Your task to perform on an android device: toggle data saver in the chrome app Image 0: 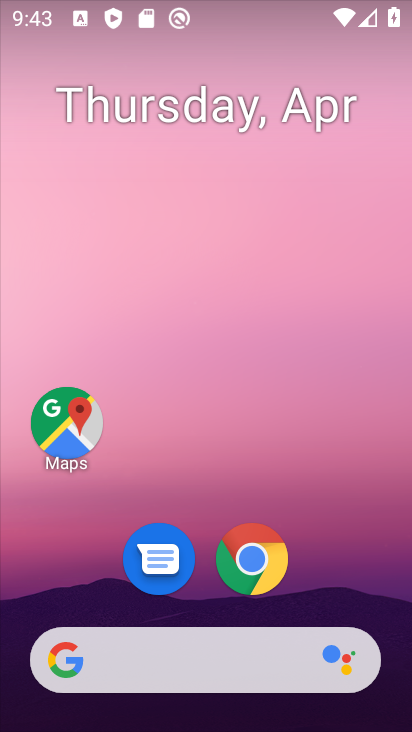
Step 0: click (72, 430)
Your task to perform on an android device: toggle data saver in the chrome app Image 1: 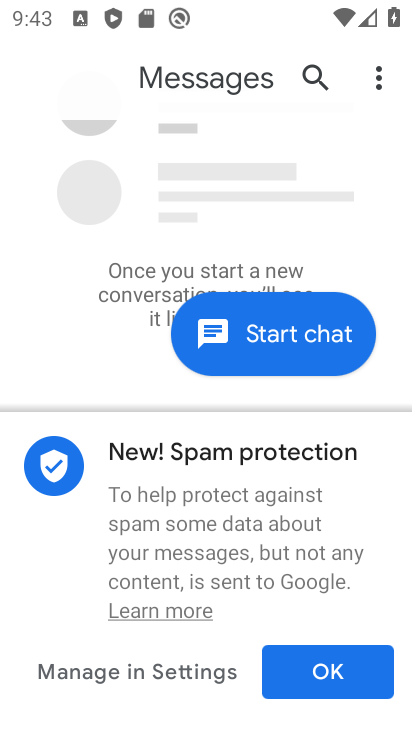
Step 1: press home button
Your task to perform on an android device: toggle data saver in the chrome app Image 2: 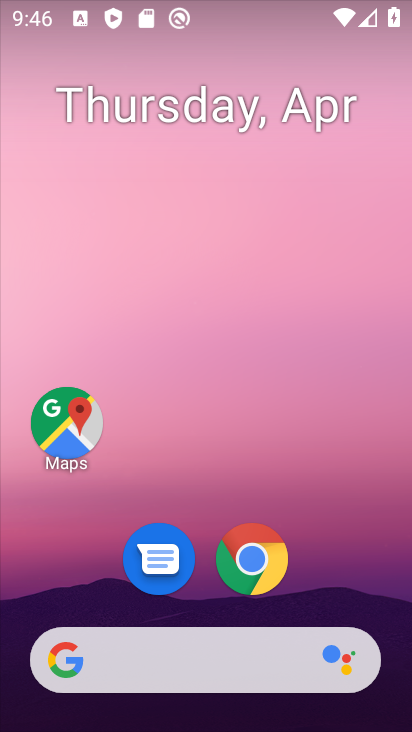
Step 2: click (248, 554)
Your task to perform on an android device: toggle data saver in the chrome app Image 3: 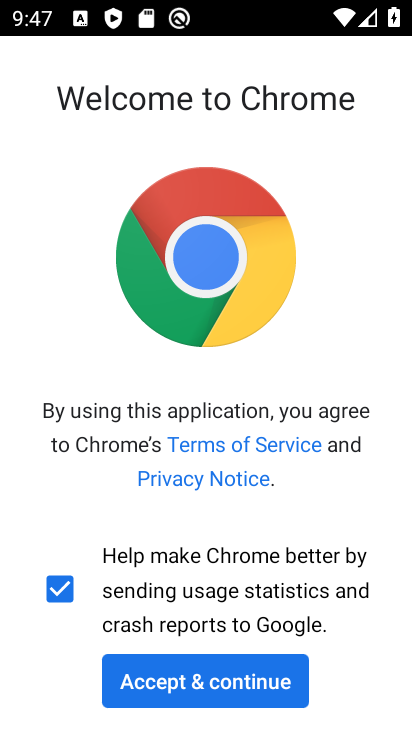
Step 3: click (219, 684)
Your task to perform on an android device: toggle data saver in the chrome app Image 4: 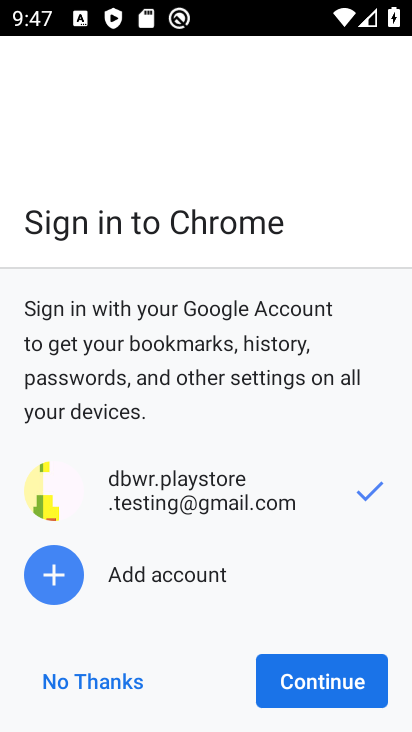
Step 4: click (286, 680)
Your task to perform on an android device: toggle data saver in the chrome app Image 5: 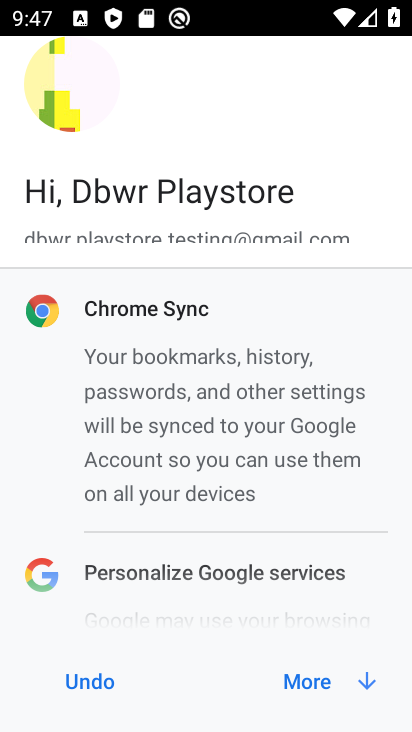
Step 5: click (309, 684)
Your task to perform on an android device: toggle data saver in the chrome app Image 6: 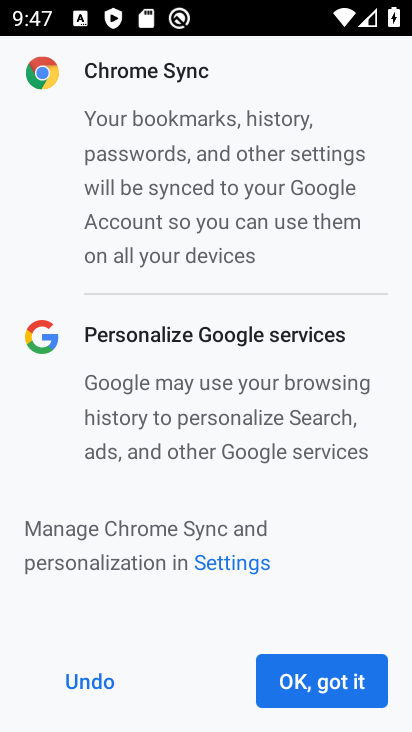
Step 6: click (310, 684)
Your task to perform on an android device: toggle data saver in the chrome app Image 7: 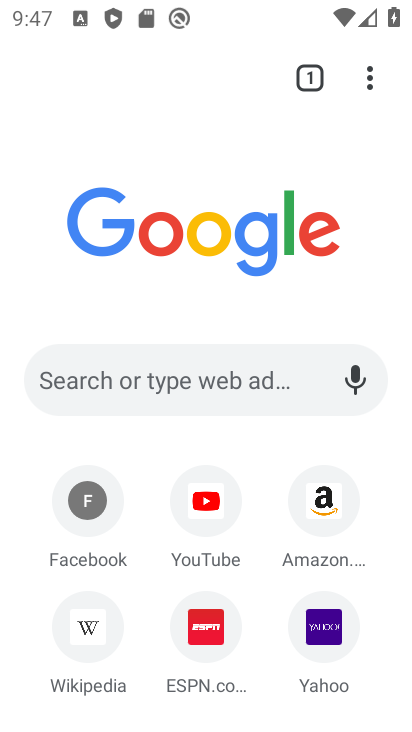
Step 7: click (370, 80)
Your task to perform on an android device: toggle data saver in the chrome app Image 8: 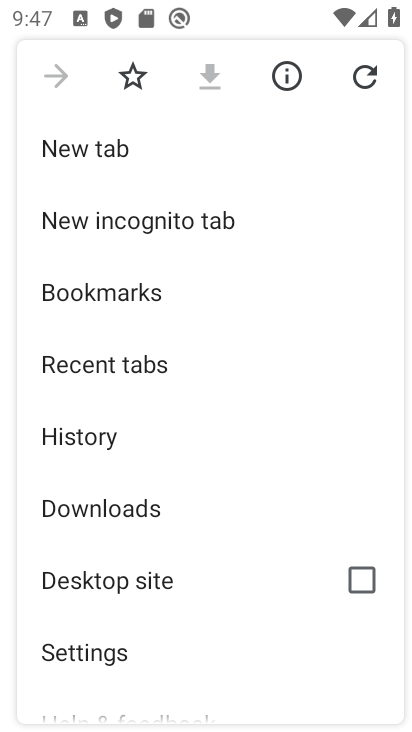
Step 8: click (119, 655)
Your task to perform on an android device: toggle data saver in the chrome app Image 9: 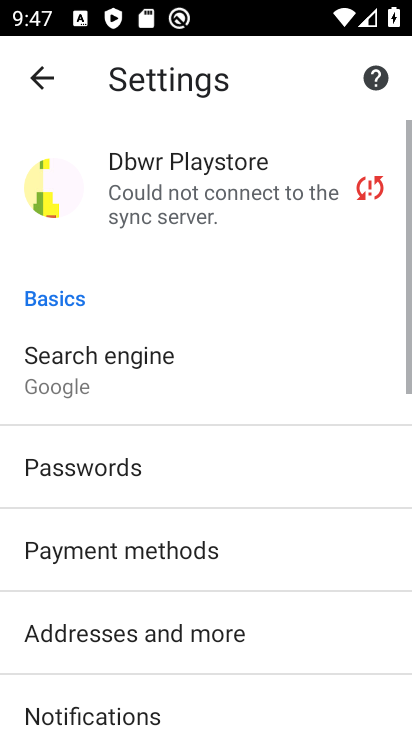
Step 9: drag from (284, 657) to (279, 212)
Your task to perform on an android device: toggle data saver in the chrome app Image 10: 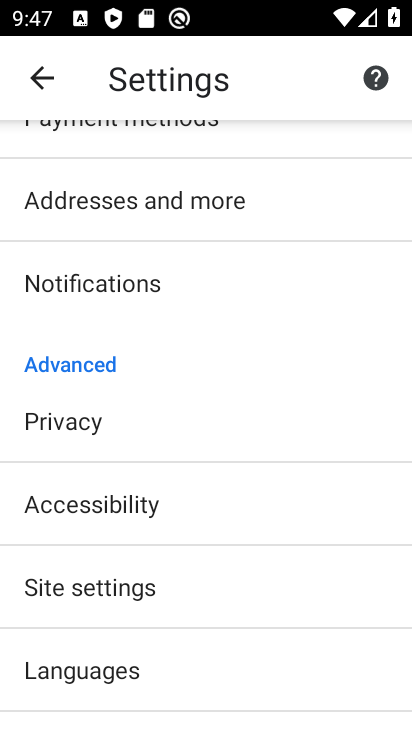
Step 10: drag from (283, 655) to (272, 103)
Your task to perform on an android device: toggle data saver in the chrome app Image 11: 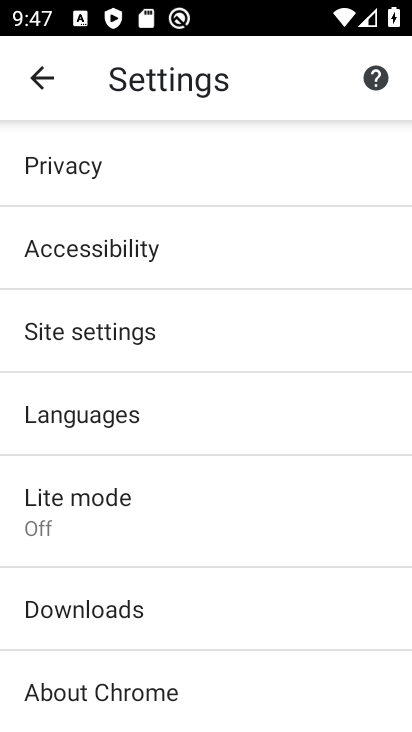
Step 11: click (109, 521)
Your task to perform on an android device: toggle data saver in the chrome app Image 12: 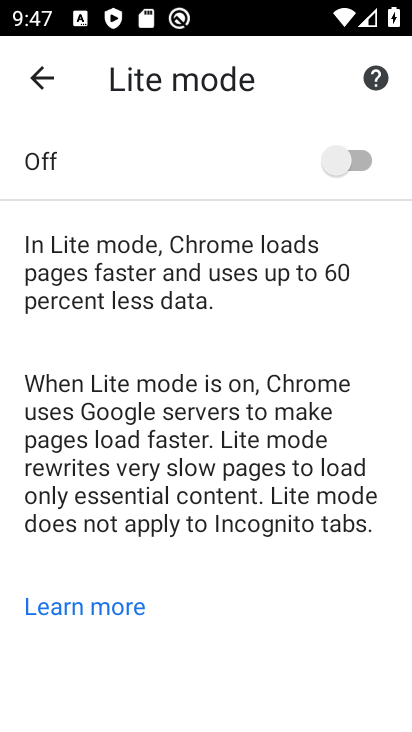
Step 12: click (357, 152)
Your task to perform on an android device: toggle data saver in the chrome app Image 13: 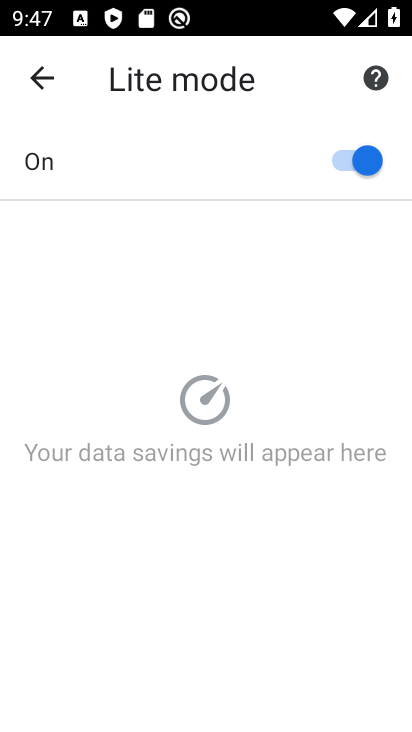
Step 13: task complete